Your task to perform on an android device: star an email in the gmail app Image 0: 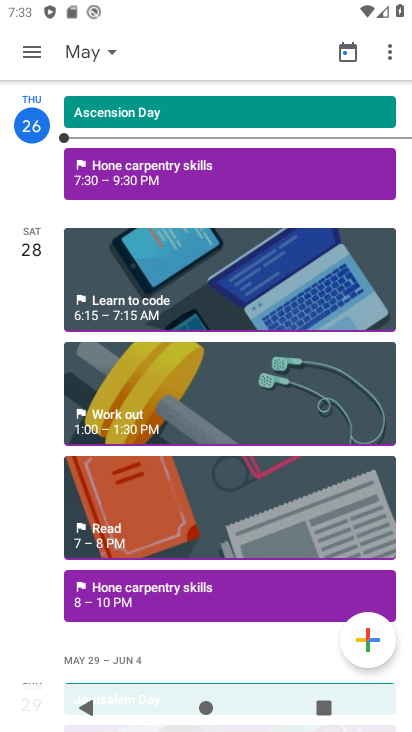
Step 0: press home button
Your task to perform on an android device: star an email in the gmail app Image 1: 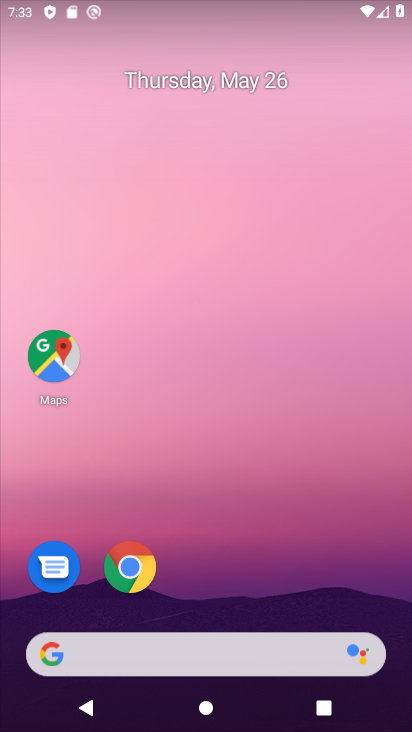
Step 1: drag from (160, 652) to (343, 197)
Your task to perform on an android device: star an email in the gmail app Image 2: 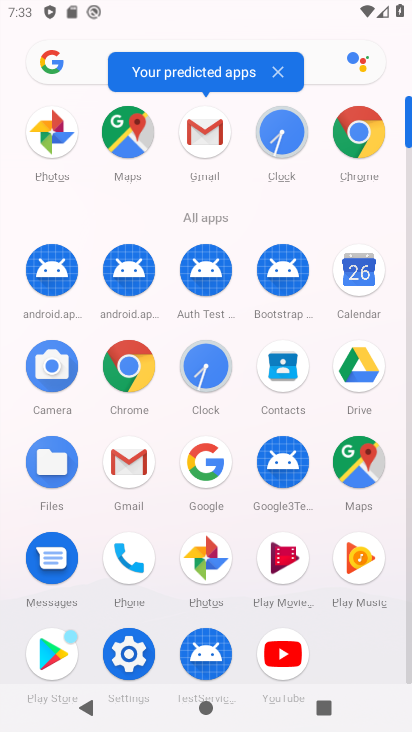
Step 2: click (219, 135)
Your task to perform on an android device: star an email in the gmail app Image 3: 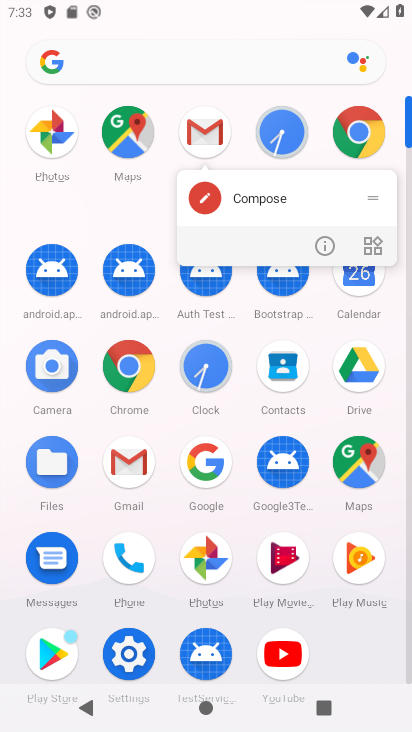
Step 3: click (208, 136)
Your task to perform on an android device: star an email in the gmail app Image 4: 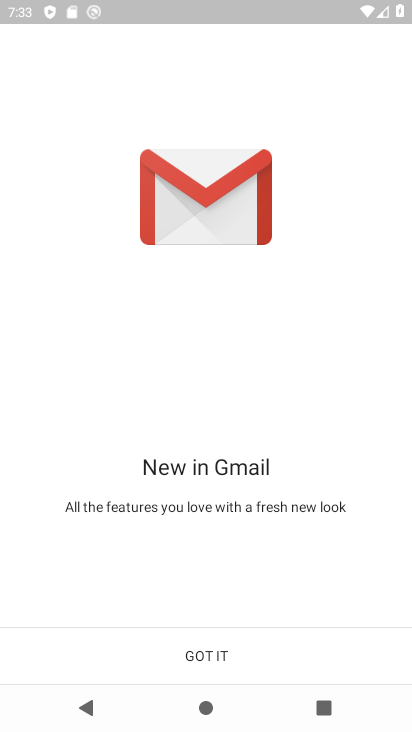
Step 4: click (217, 633)
Your task to perform on an android device: star an email in the gmail app Image 5: 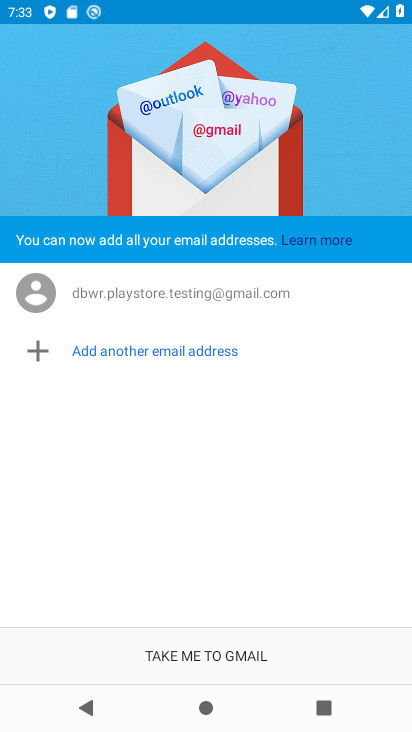
Step 5: click (217, 653)
Your task to perform on an android device: star an email in the gmail app Image 6: 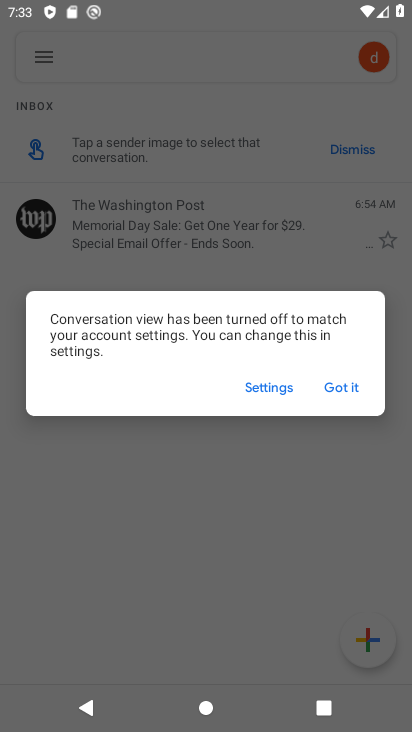
Step 6: click (335, 388)
Your task to perform on an android device: star an email in the gmail app Image 7: 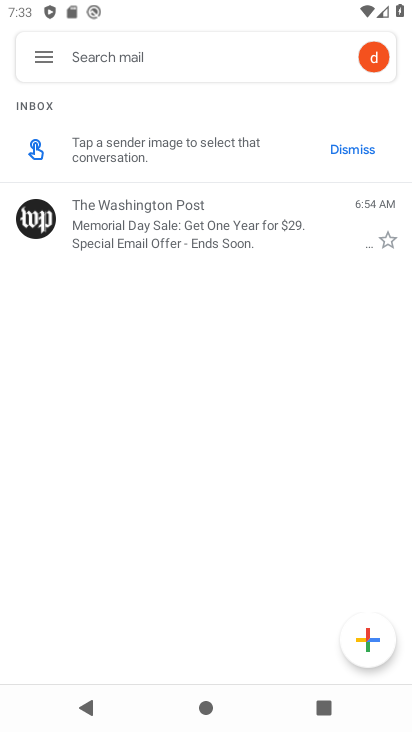
Step 7: click (52, 226)
Your task to perform on an android device: star an email in the gmail app Image 8: 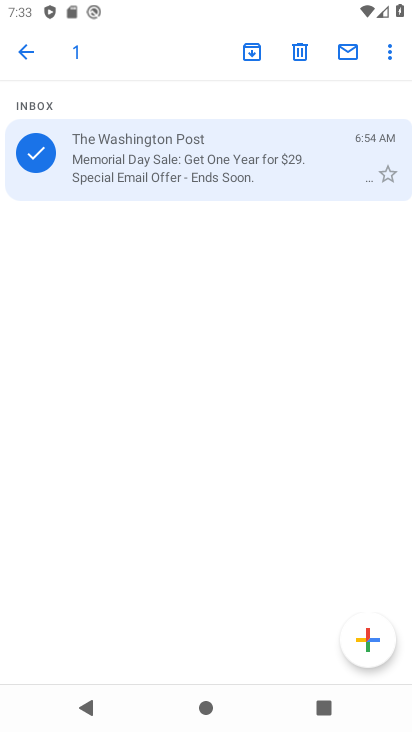
Step 8: click (390, 51)
Your task to perform on an android device: star an email in the gmail app Image 9: 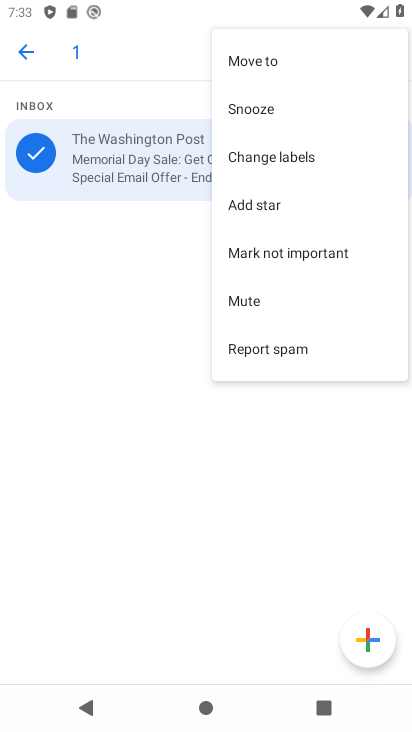
Step 9: click (268, 201)
Your task to perform on an android device: star an email in the gmail app Image 10: 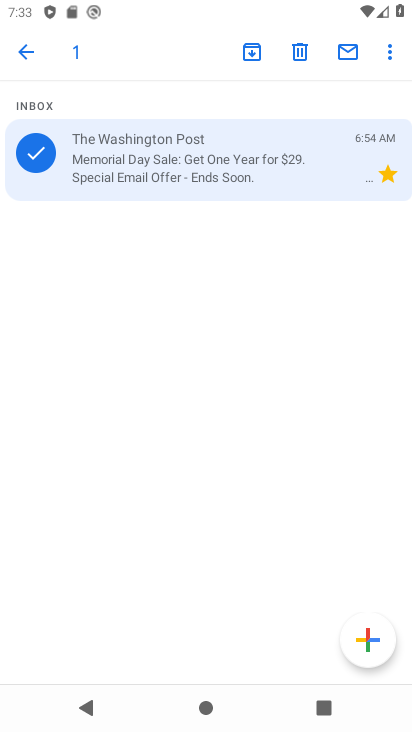
Step 10: click (46, 167)
Your task to perform on an android device: star an email in the gmail app Image 11: 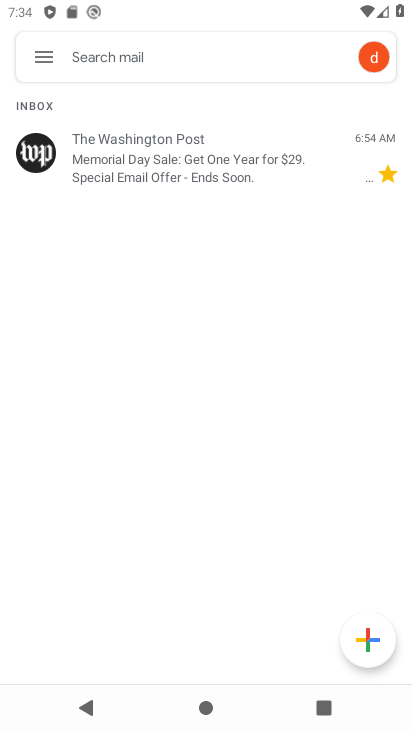
Step 11: task complete